Your task to perform on an android device: Go to wifi settings Image 0: 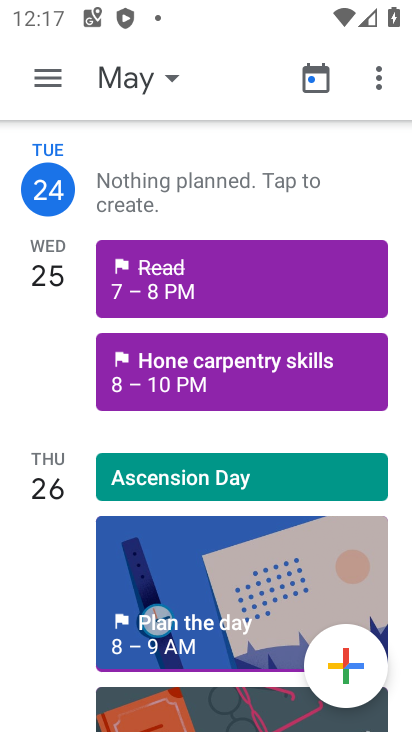
Step 0: press home button
Your task to perform on an android device: Go to wifi settings Image 1: 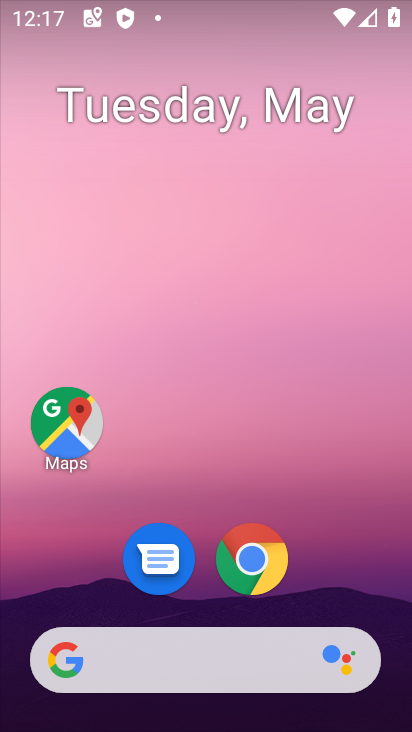
Step 1: drag from (373, 566) to (336, 80)
Your task to perform on an android device: Go to wifi settings Image 2: 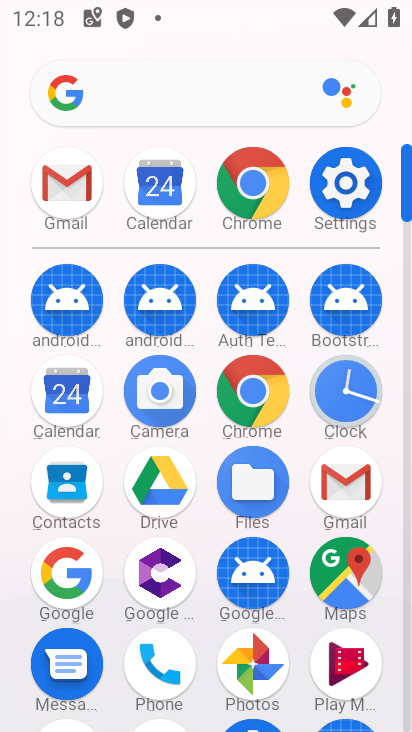
Step 2: click (356, 169)
Your task to perform on an android device: Go to wifi settings Image 3: 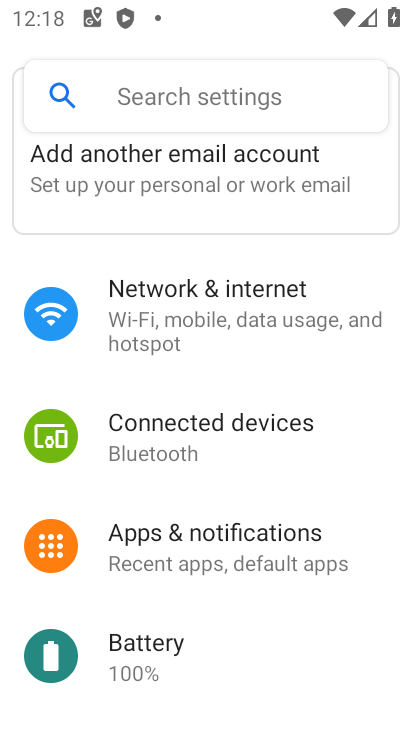
Step 3: click (203, 281)
Your task to perform on an android device: Go to wifi settings Image 4: 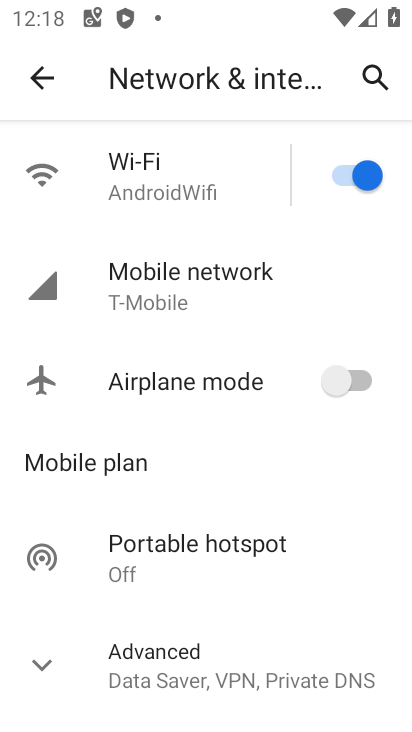
Step 4: click (203, 281)
Your task to perform on an android device: Go to wifi settings Image 5: 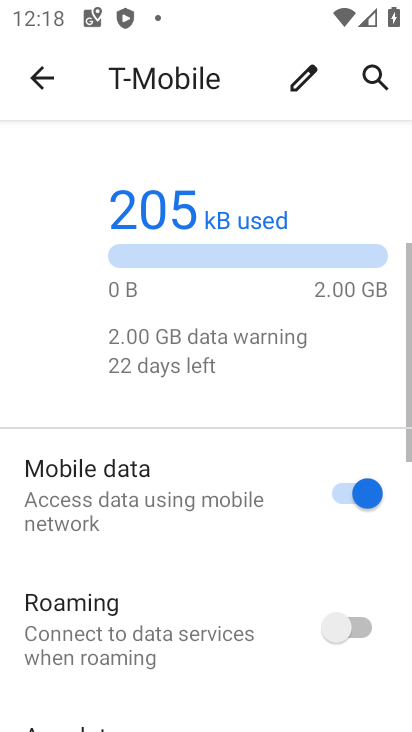
Step 5: task complete